Your task to perform on an android device: Clear all items from cart on amazon.com. Add "macbook air" to the cart on amazon.com Image 0: 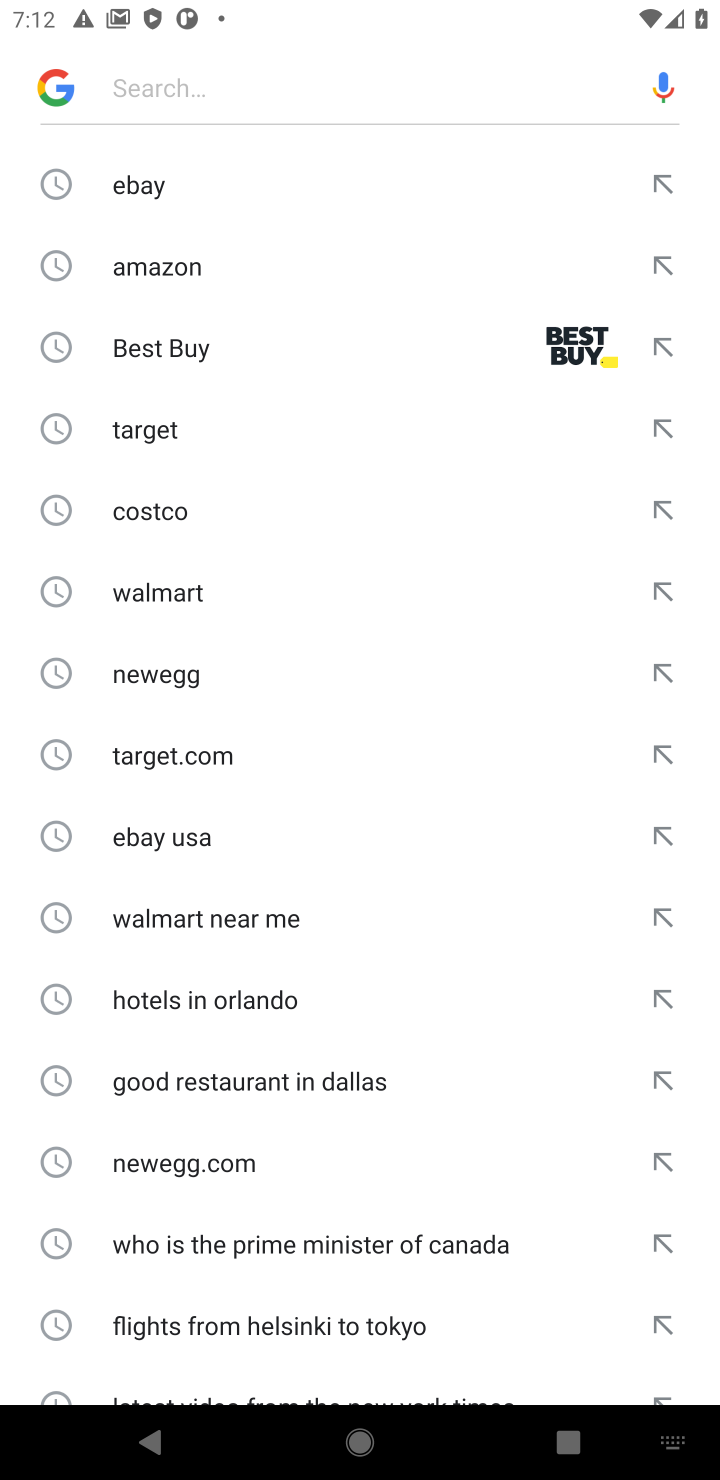
Step 0: task complete